Your task to perform on an android device: Check the news Image 0: 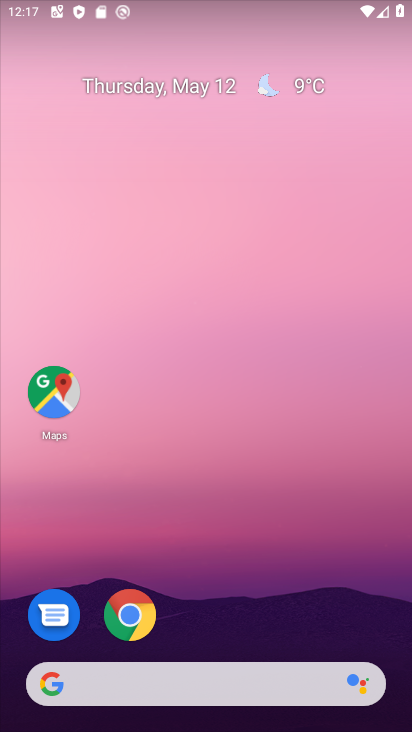
Step 0: click (131, 614)
Your task to perform on an android device: Check the news Image 1: 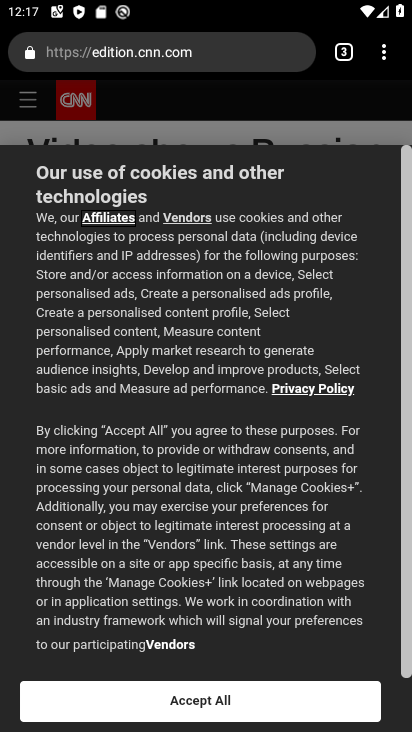
Step 1: click (208, 65)
Your task to perform on an android device: Check the news Image 2: 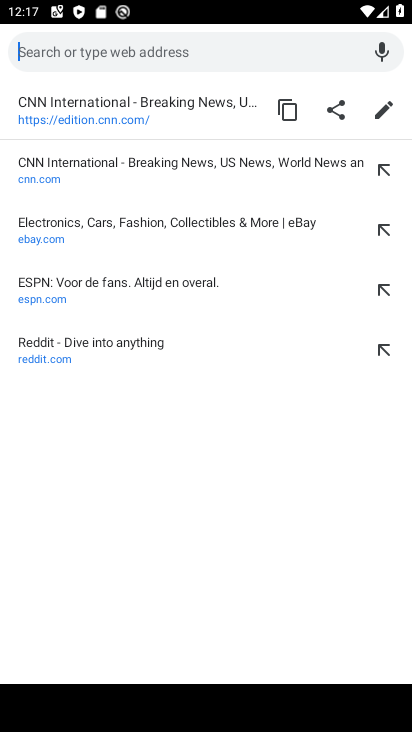
Step 2: type "news"
Your task to perform on an android device: Check the news Image 3: 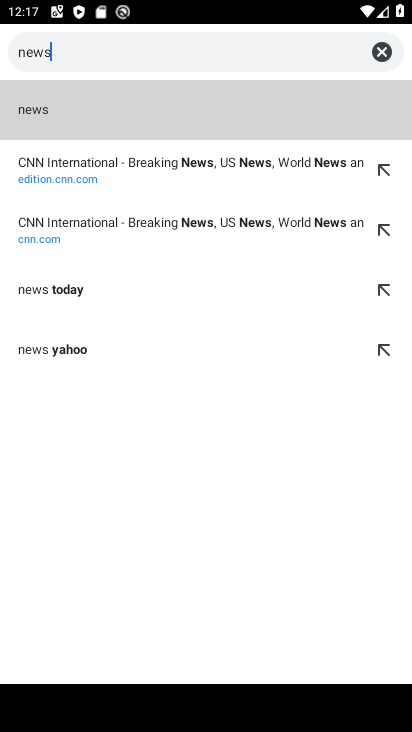
Step 3: click (38, 117)
Your task to perform on an android device: Check the news Image 4: 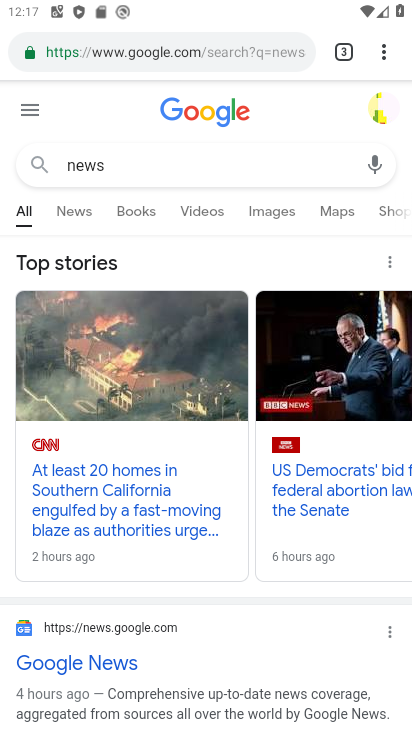
Step 4: click (115, 656)
Your task to perform on an android device: Check the news Image 5: 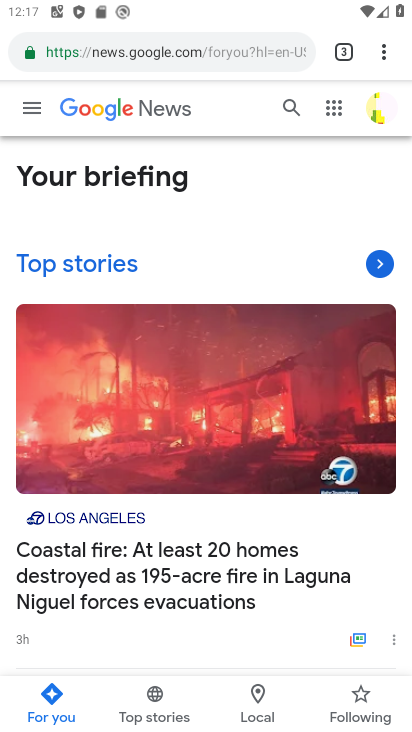
Step 5: task complete